Your task to perform on an android device: Turn on the flashlight Image 0: 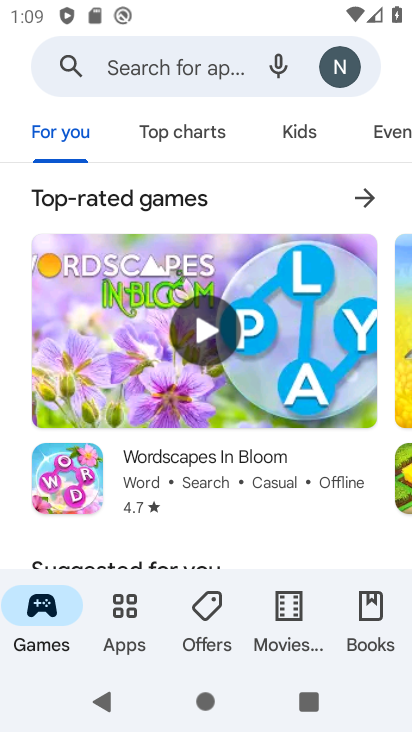
Step 0: press home button
Your task to perform on an android device: Turn on the flashlight Image 1: 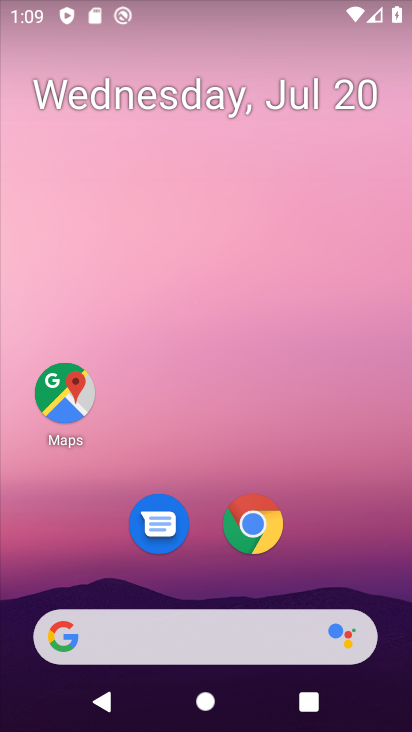
Step 1: drag from (321, 502) to (369, 37)
Your task to perform on an android device: Turn on the flashlight Image 2: 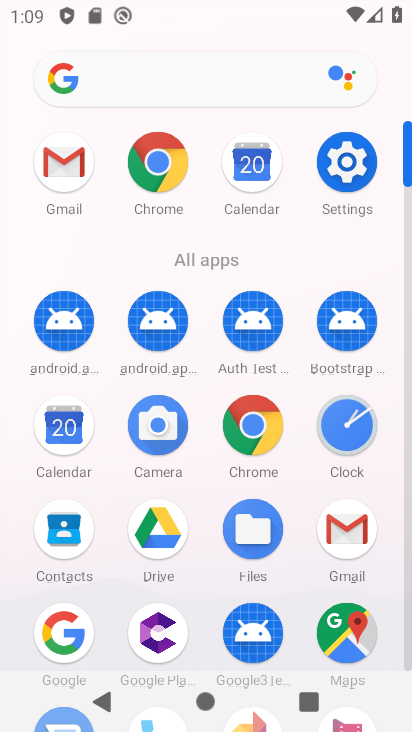
Step 2: click (347, 162)
Your task to perform on an android device: Turn on the flashlight Image 3: 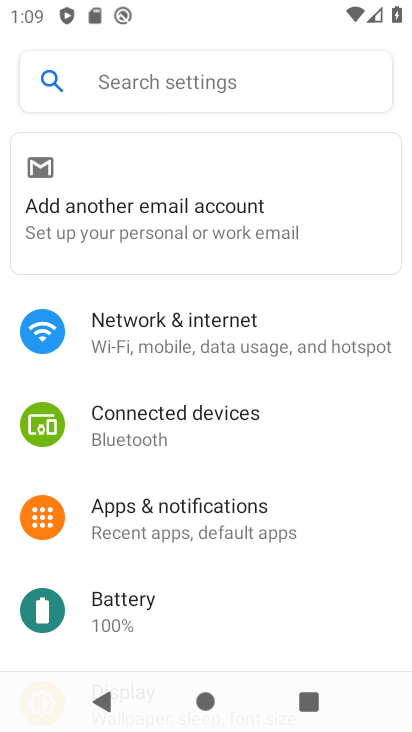
Step 3: click (247, 79)
Your task to perform on an android device: Turn on the flashlight Image 4: 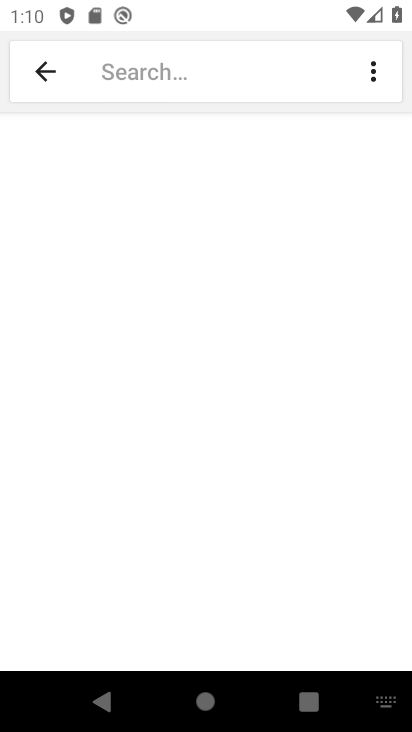
Step 4: type "Flashlight"
Your task to perform on an android device: Turn on the flashlight Image 5: 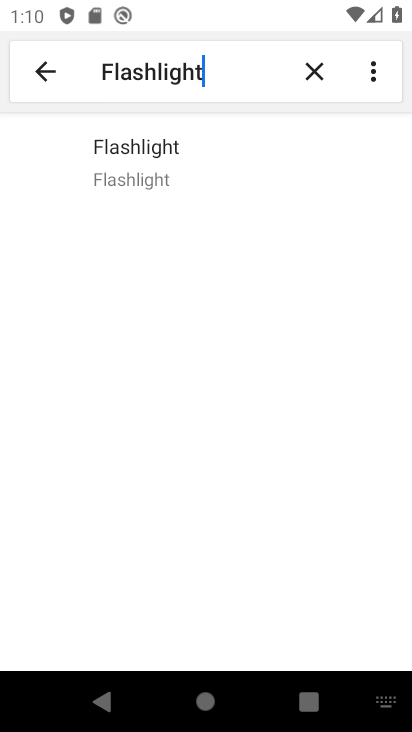
Step 5: click (151, 154)
Your task to perform on an android device: Turn on the flashlight Image 6: 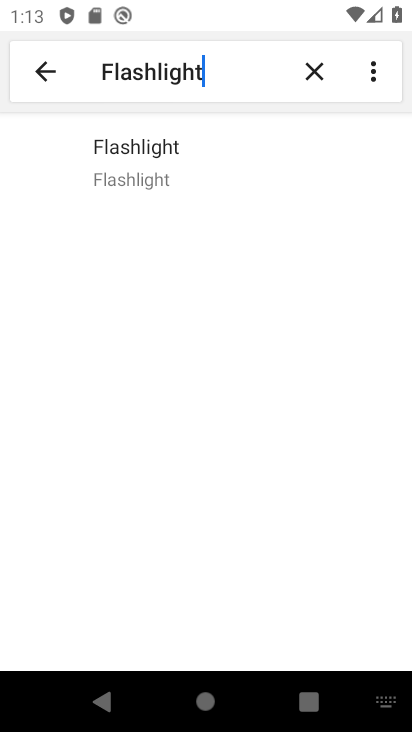
Step 6: task complete